Your task to perform on an android device: turn off javascript in the chrome app Image 0: 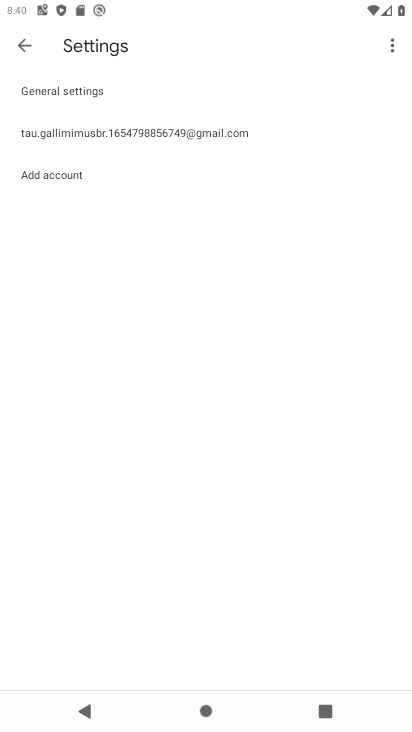
Step 0: press home button
Your task to perform on an android device: turn off javascript in the chrome app Image 1: 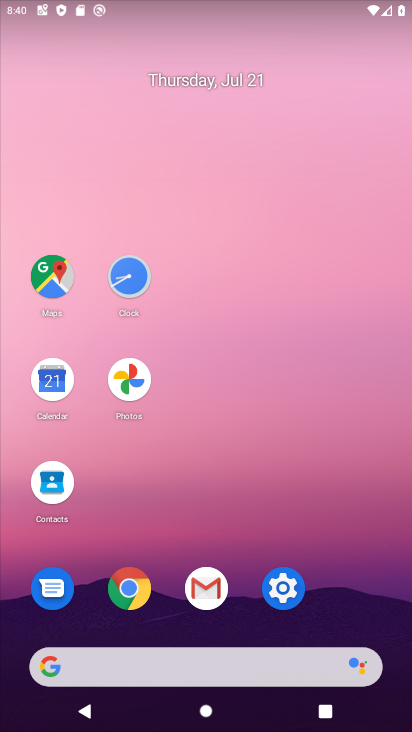
Step 1: click (125, 586)
Your task to perform on an android device: turn off javascript in the chrome app Image 2: 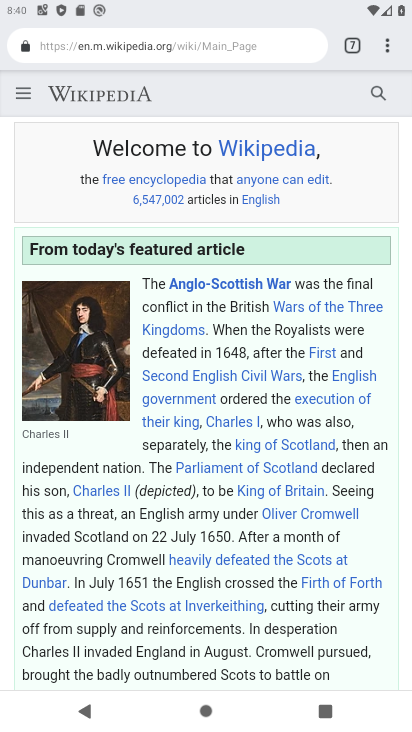
Step 2: click (388, 44)
Your task to perform on an android device: turn off javascript in the chrome app Image 3: 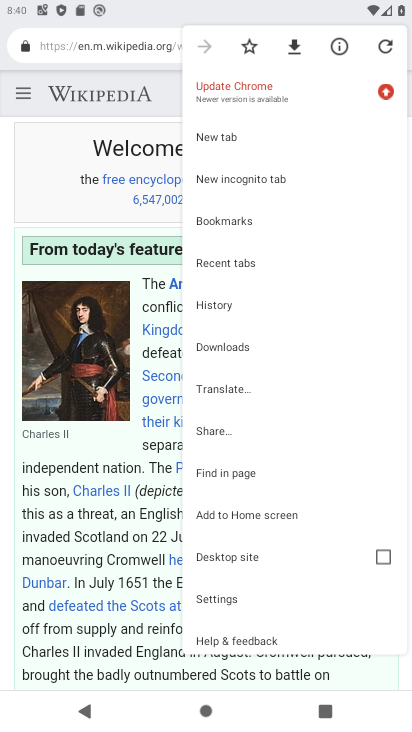
Step 3: click (226, 598)
Your task to perform on an android device: turn off javascript in the chrome app Image 4: 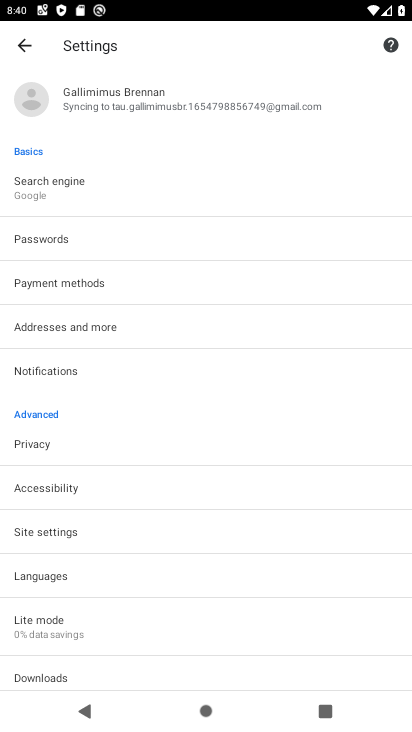
Step 4: click (48, 530)
Your task to perform on an android device: turn off javascript in the chrome app Image 5: 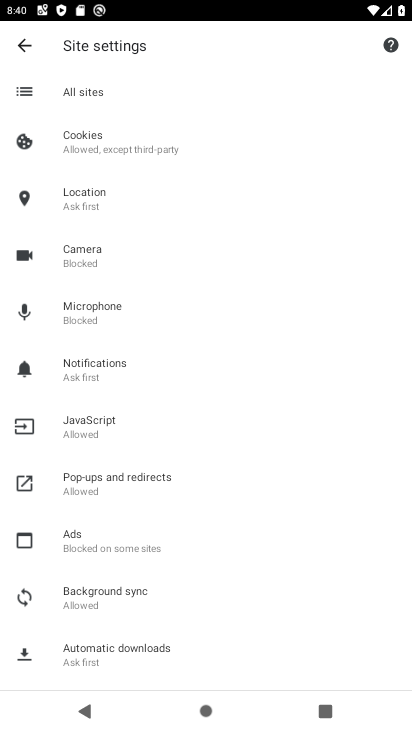
Step 5: click (101, 414)
Your task to perform on an android device: turn off javascript in the chrome app Image 6: 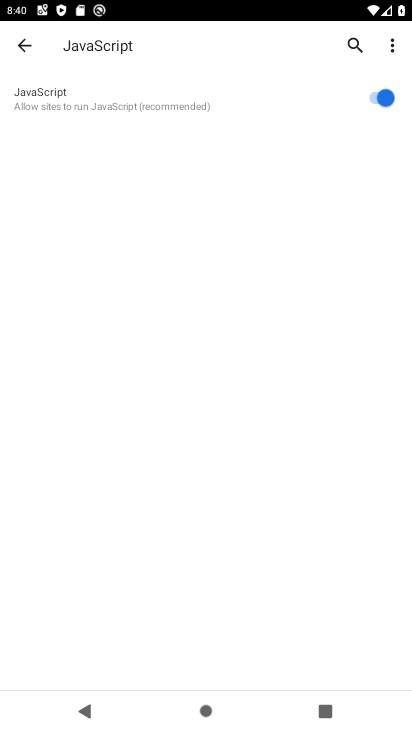
Step 6: click (394, 89)
Your task to perform on an android device: turn off javascript in the chrome app Image 7: 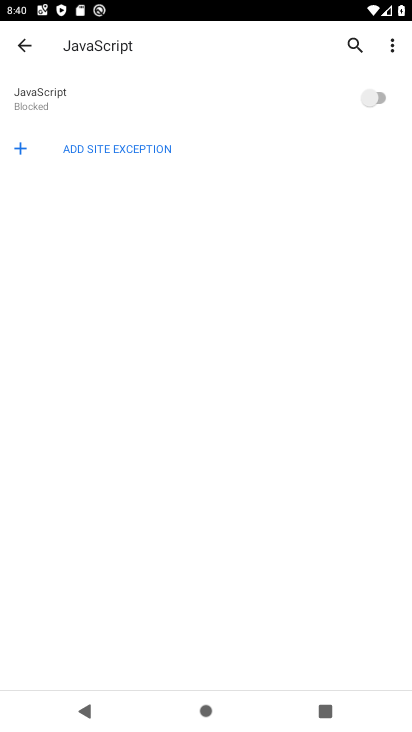
Step 7: task complete